Your task to perform on an android device: Add razer deathadder to the cart on costco.com Image 0: 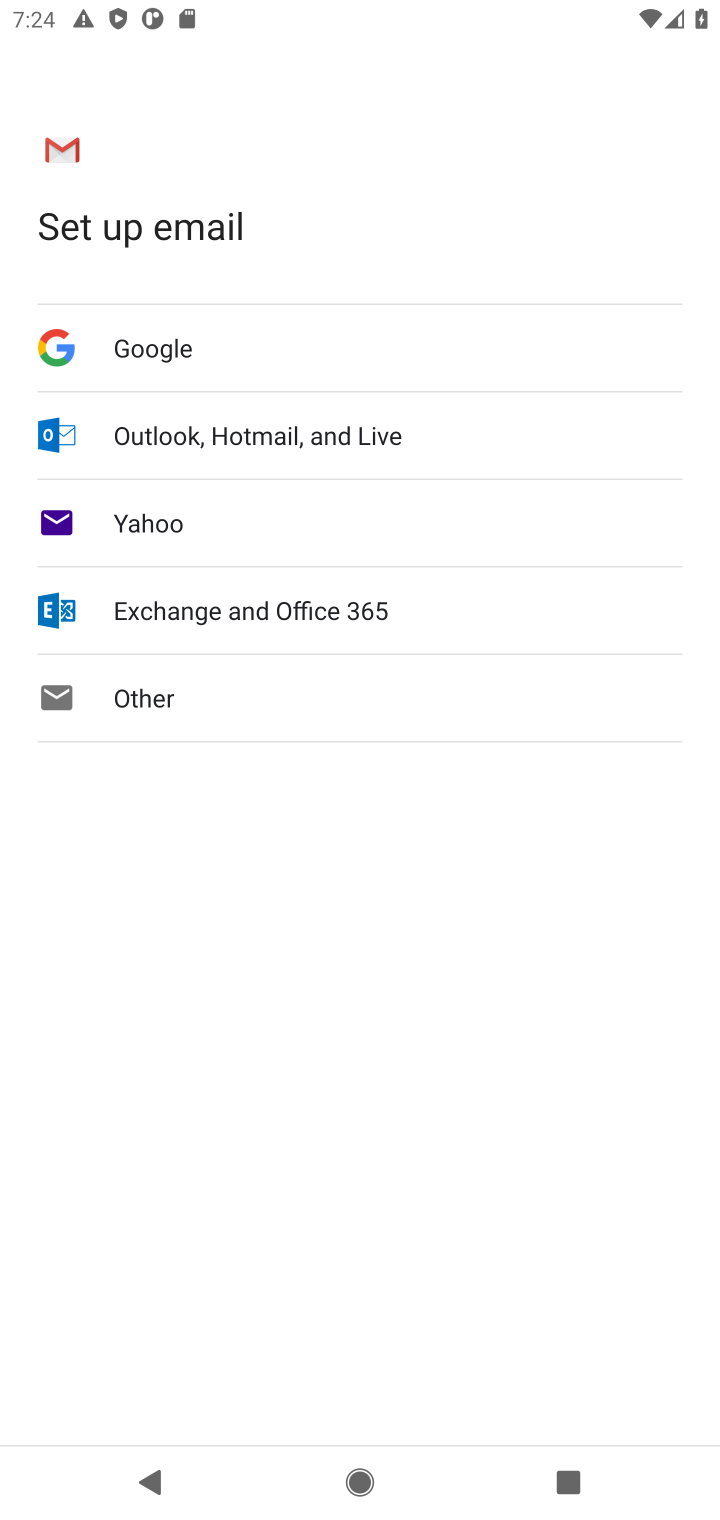
Step 0: press home button
Your task to perform on an android device: Add razer deathadder to the cart on costco.com Image 1: 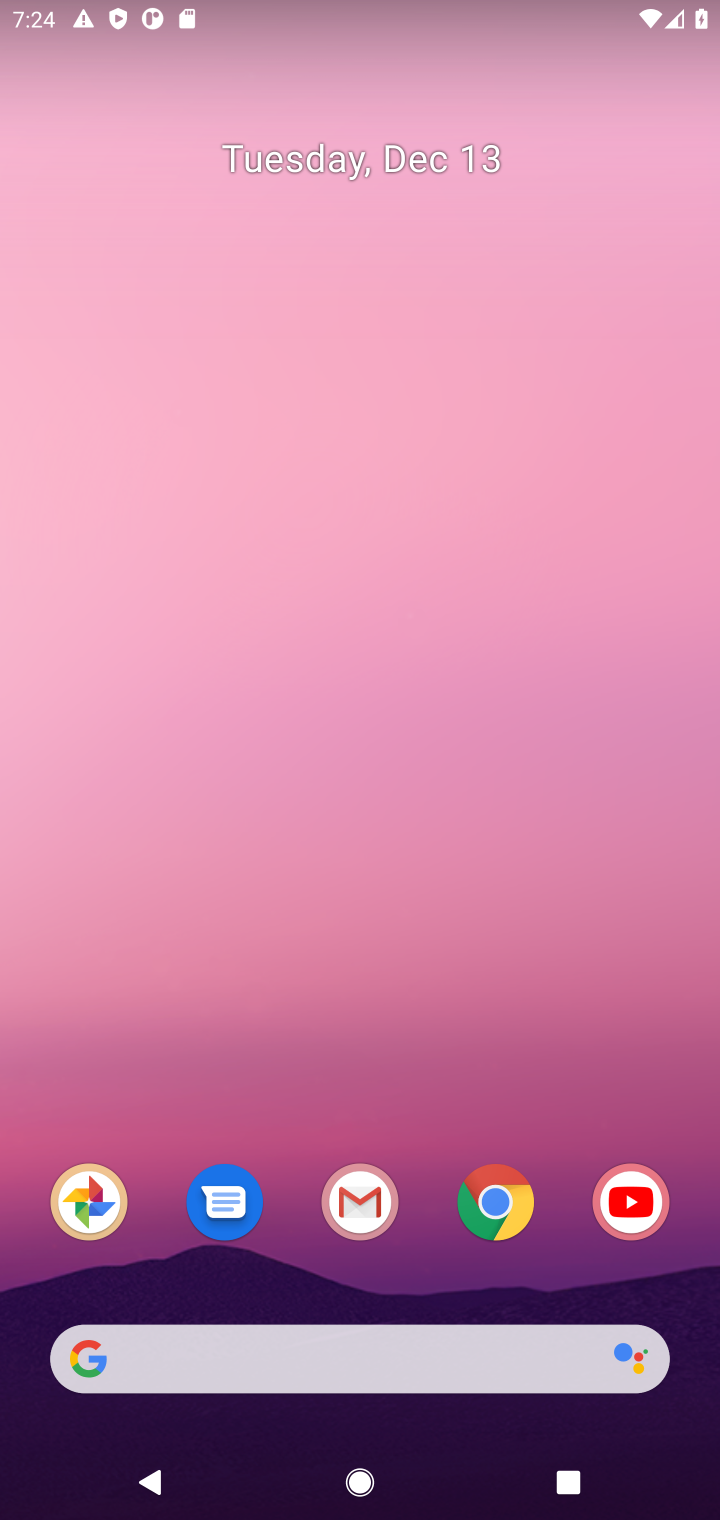
Step 1: click (506, 1196)
Your task to perform on an android device: Add razer deathadder to the cart on costco.com Image 2: 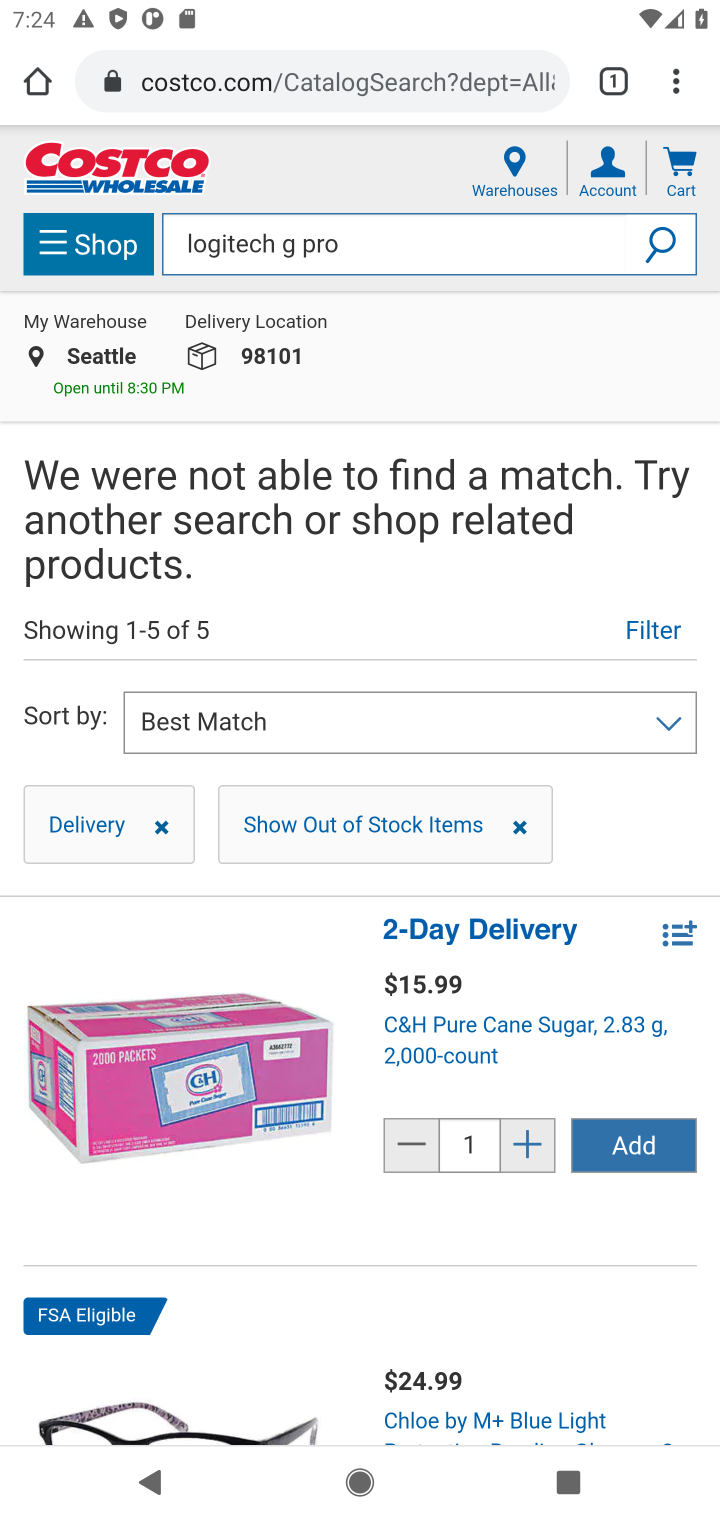
Step 2: click (366, 241)
Your task to perform on an android device: Add razer deathadder to the cart on costco.com Image 3: 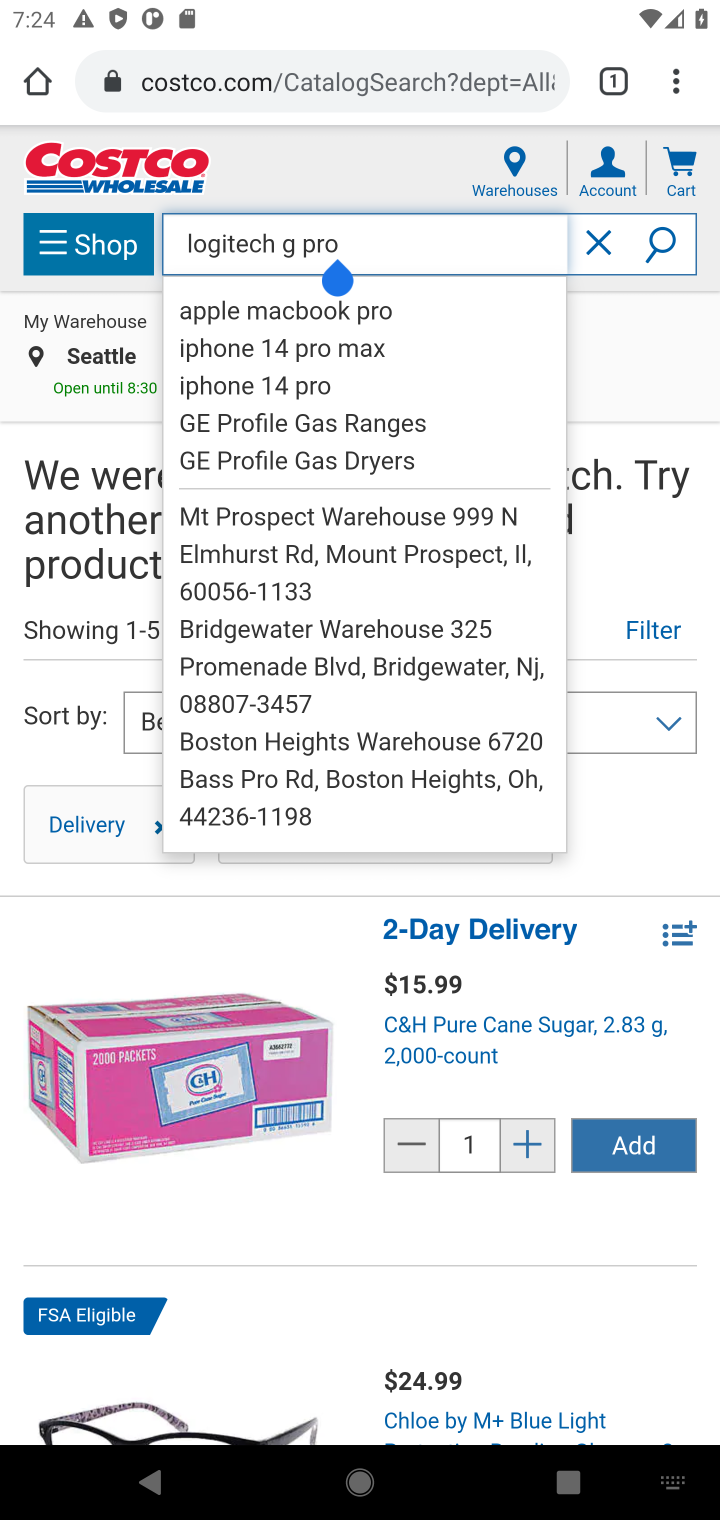
Step 3: click (606, 248)
Your task to perform on an android device: Add razer deathadder to the cart on costco.com Image 4: 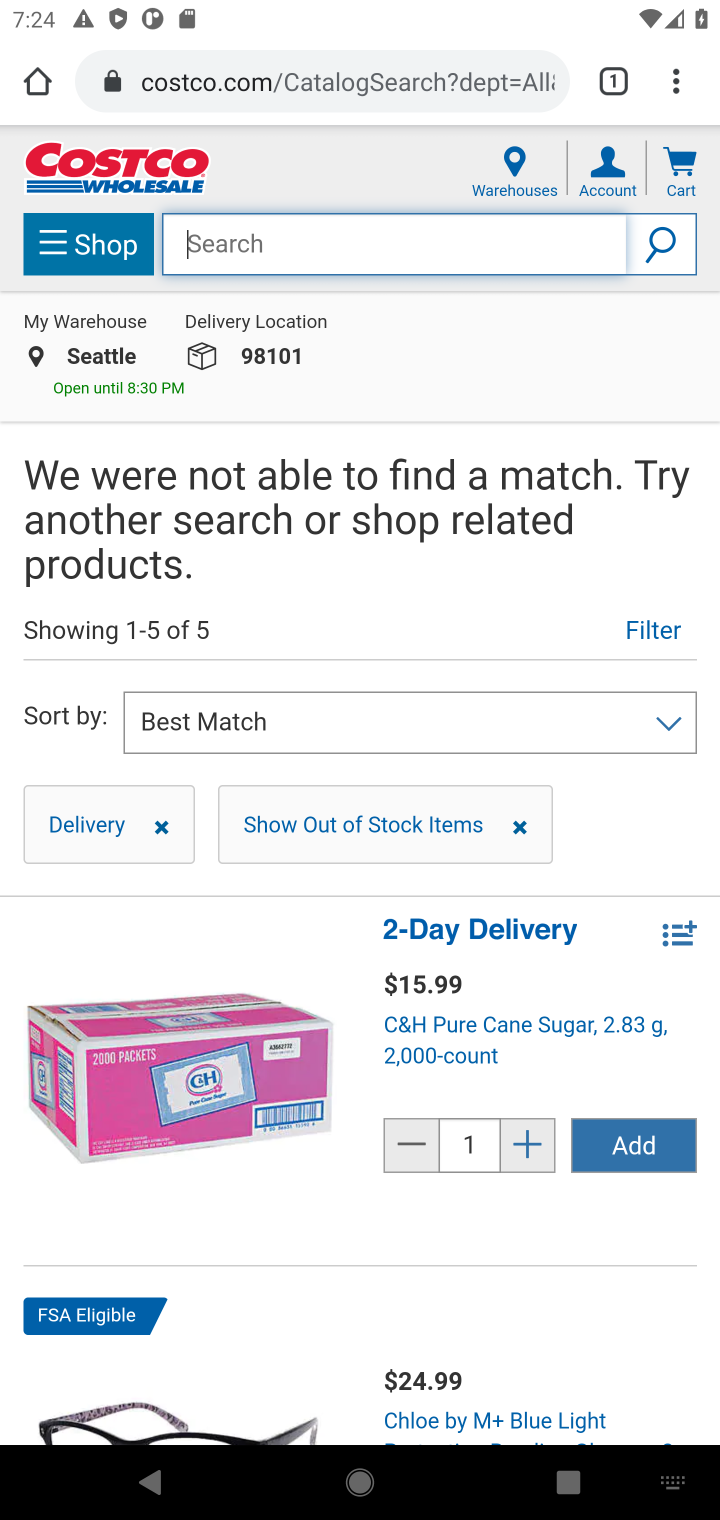
Step 4: type "razer deathadder"
Your task to perform on an android device: Add razer deathadder to the cart on costco.com Image 5: 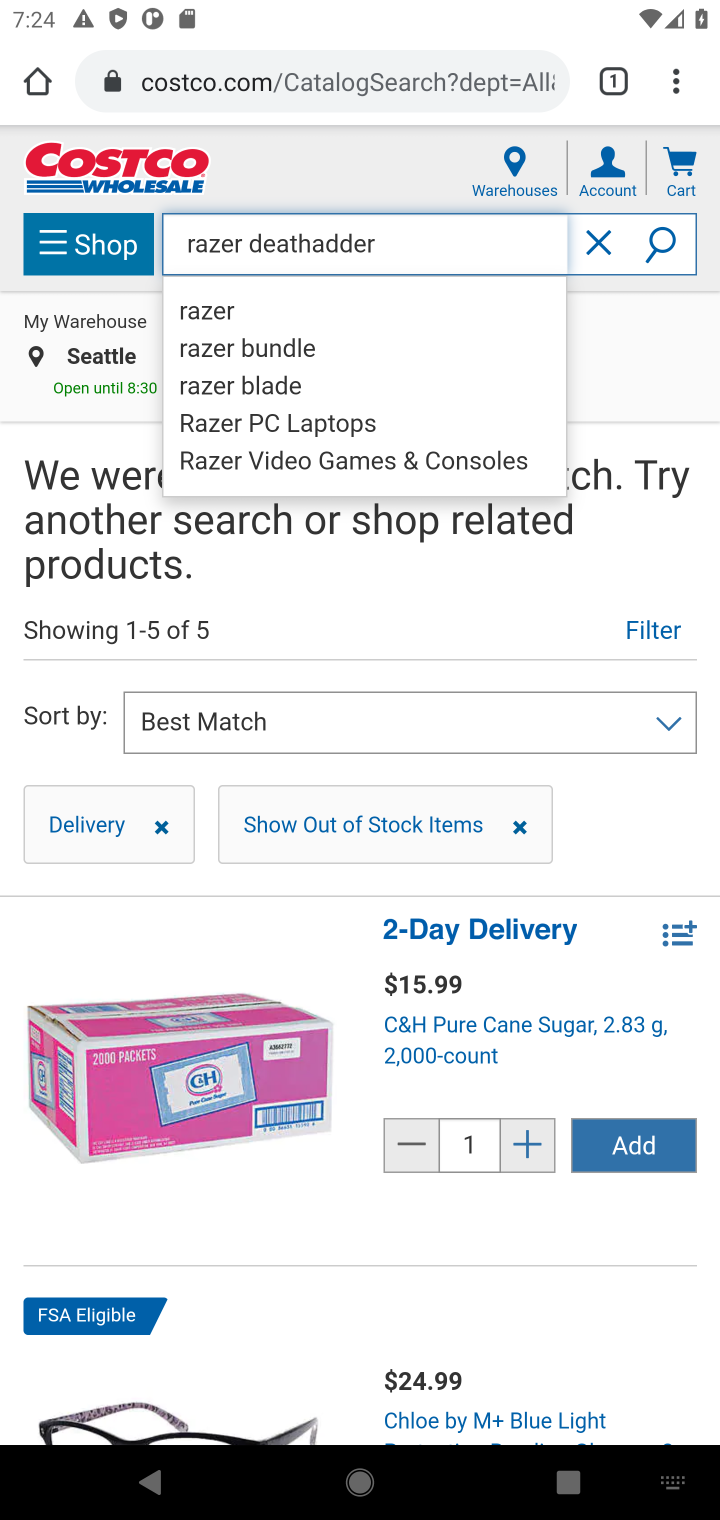
Step 5: click (664, 252)
Your task to perform on an android device: Add razer deathadder to the cart on costco.com Image 6: 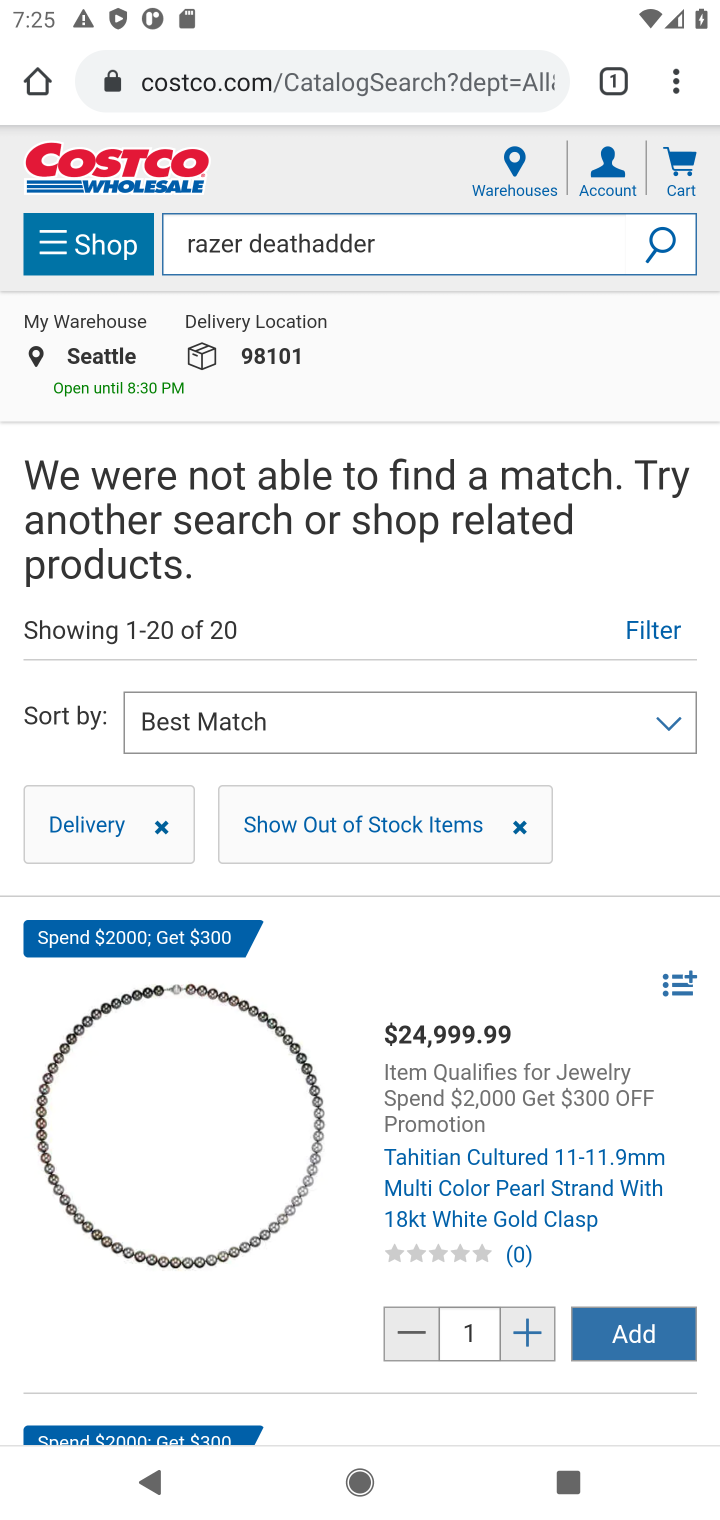
Step 6: task complete